Your task to perform on an android device: turn off notifications settings in the gmail app Image 0: 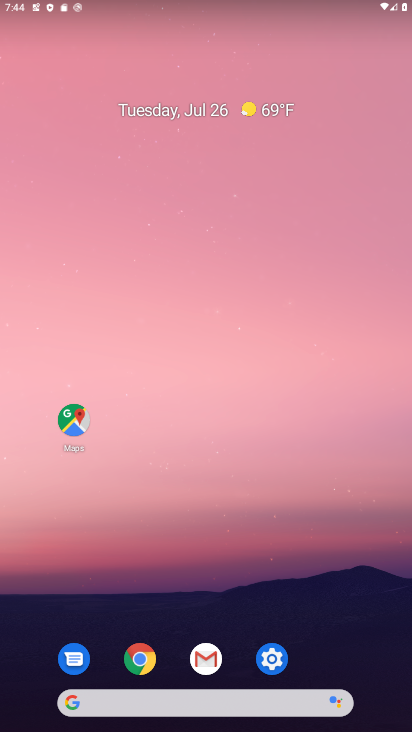
Step 0: click (204, 653)
Your task to perform on an android device: turn off notifications settings in the gmail app Image 1: 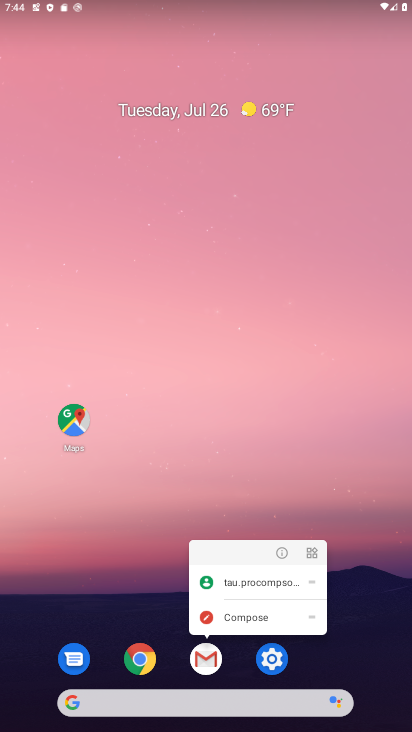
Step 1: click (206, 659)
Your task to perform on an android device: turn off notifications settings in the gmail app Image 2: 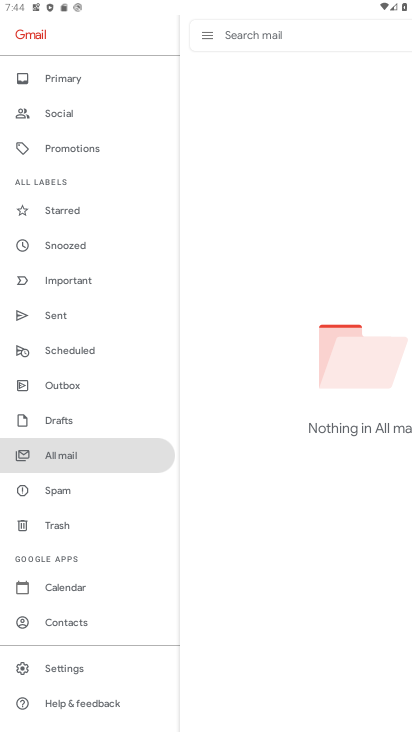
Step 2: click (62, 663)
Your task to perform on an android device: turn off notifications settings in the gmail app Image 3: 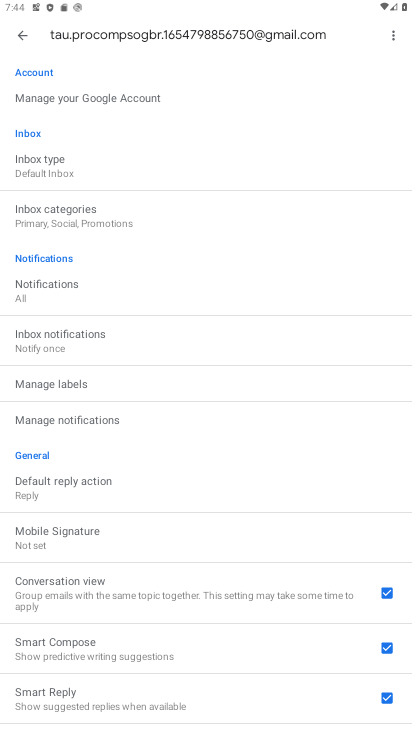
Step 3: click (46, 293)
Your task to perform on an android device: turn off notifications settings in the gmail app Image 4: 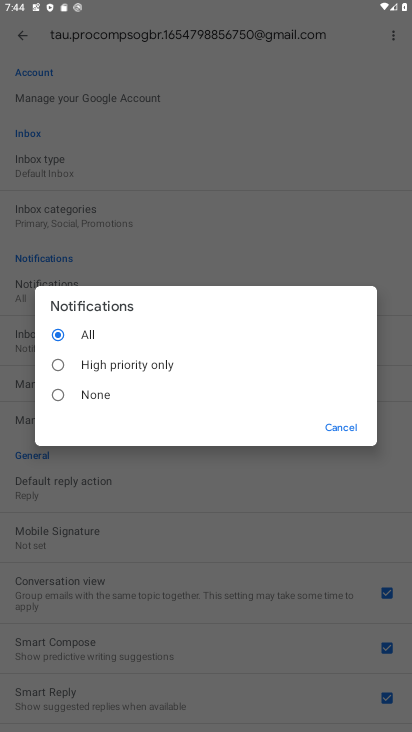
Step 4: click (90, 389)
Your task to perform on an android device: turn off notifications settings in the gmail app Image 5: 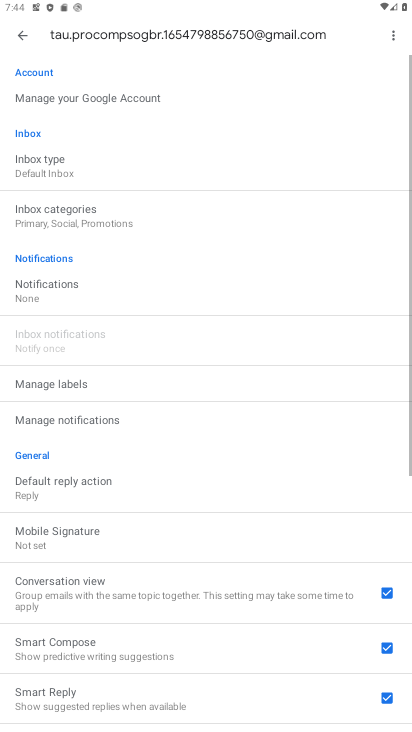
Step 5: task complete